Your task to perform on an android device: Open Chrome and go to the settings page Image 0: 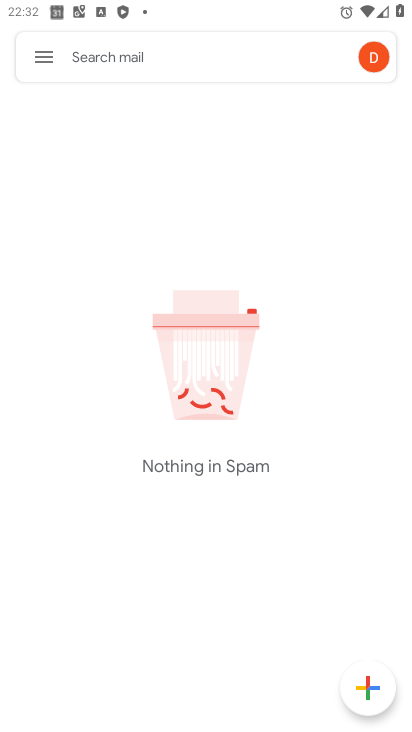
Step 0: press home button
Your task to perform on an android device: Open Chrome and go to the settings page Image 1: 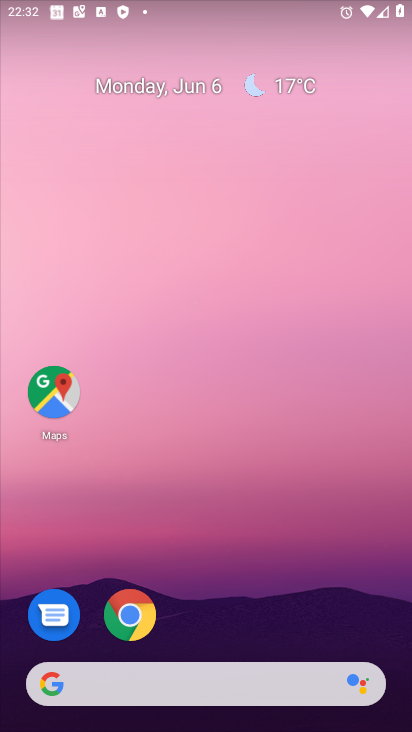
Step 1: click (129, 614)
Your task to perform on an android device: Open Chrome and go to the settings page Image 2: 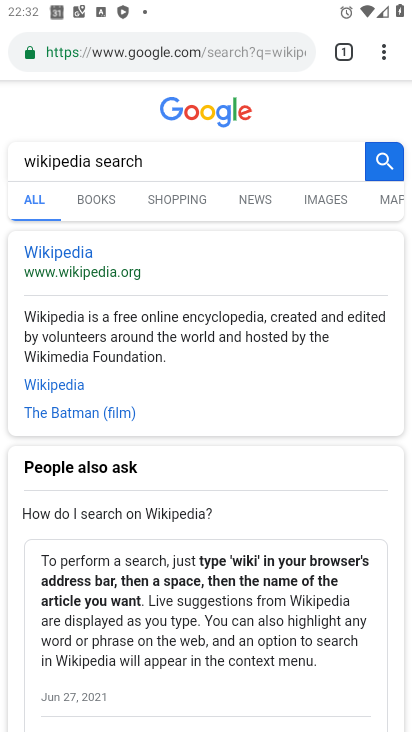
Step 2: click (378, 45)
Your task to perform on an android device: Open Chrome and go to the settings page Image 3: 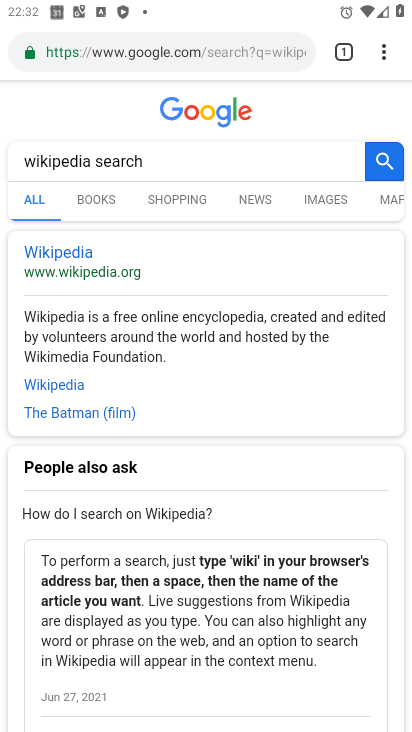
Step 3: click (390, 52)
Your task to perform on an android device: Open Chrome and go to the settings page Image 4: 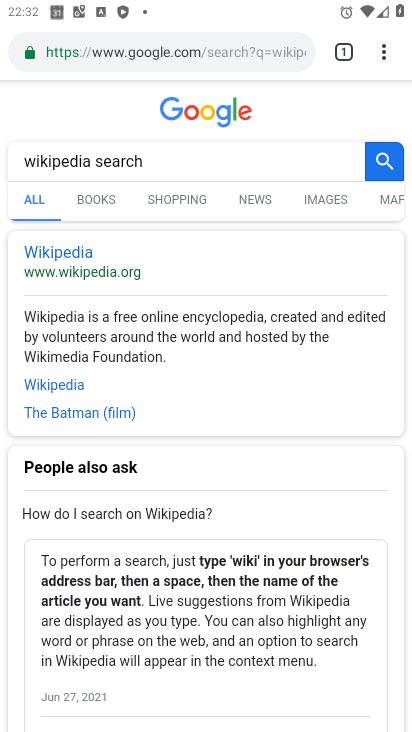
Step 4: click (378, 50)
Your task to perform on an android device: Open Chrome and go to the settings page Image 5: 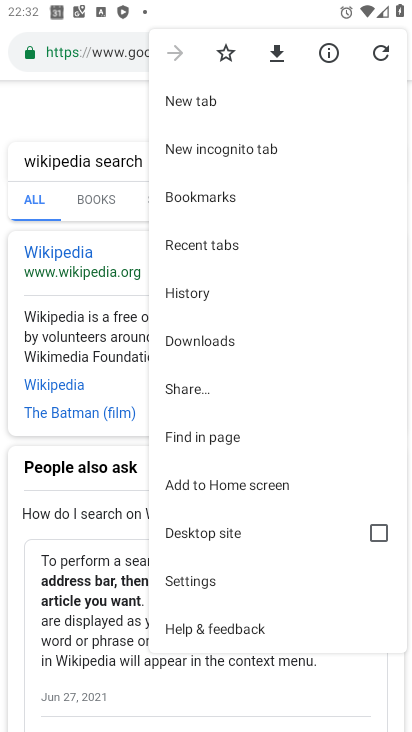
Step 5: click (198, 576)
Your task to perform on an android device: Open Chrome and go to the settings page Image 6: 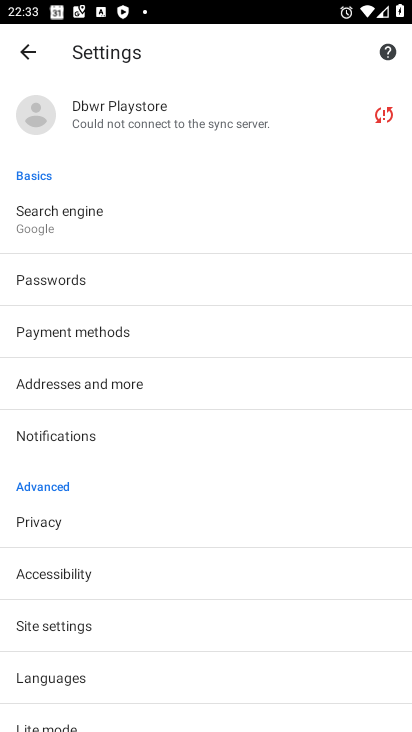
Step 6: task complete